Your task to perform on an android device: open app "PUBG MOBILE" (install if not already installed) and go to login screen Image 0: 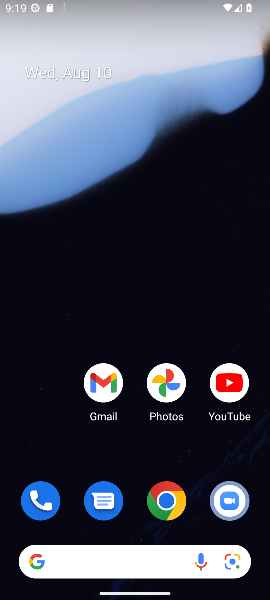
Step 0: drag from (136, 531) to (154, 90)
Your task to perform on an android device: open app "PUBG MOBILE" (install if not already installed) and go to login screen Image 1: 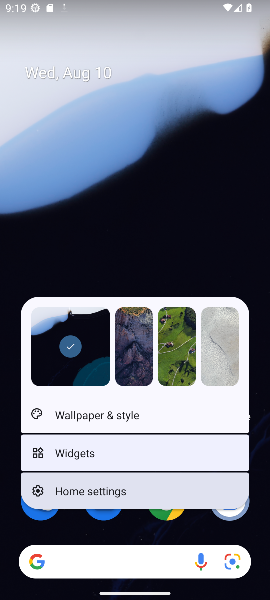
Step 1: click (154, 90)
Your task to perform on an android device: open app "PUBG MOBILE" (install if not already installed) and go to login screen Image 2: 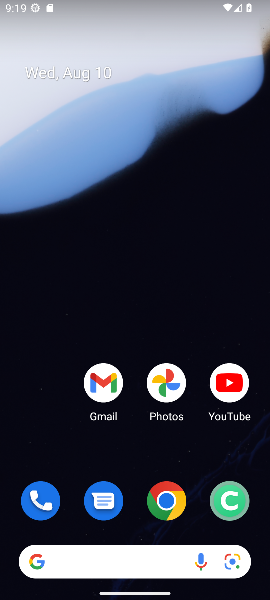
Step 2: drag from (141, 517) to (184, 186)
Your task to perform on an android device: open app "PUBG MOBILE" (install if not already installed) and go to login screen Image 3: 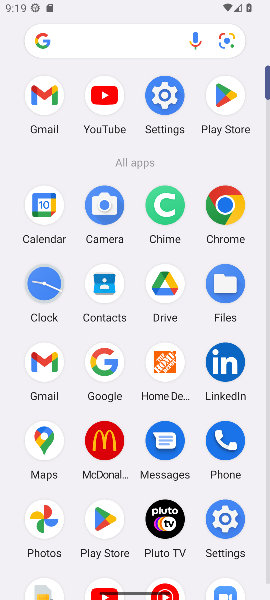
Step 3: click (228, 114)
Your task to perform on an android device: open app "PUBG MOBILE" (install if not already installed) and go to login screen Image 4: 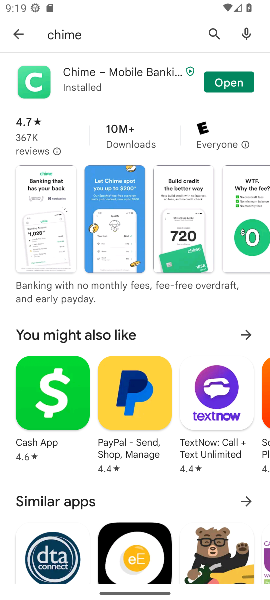
Step 4: click (220, 41)
Your task to perform on an android device: open app "PUBG MOBILE" (install if not already installed) and go to login screen Image 5: 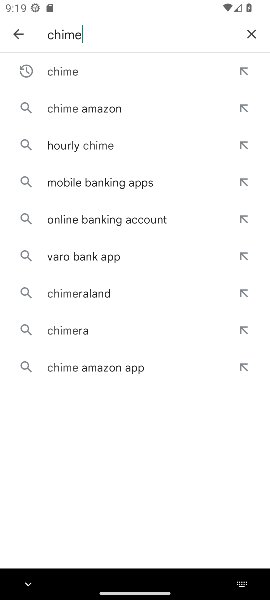
Step 5: click (243, 41)
Your task to perform on an android device: open app "PUBG MOBILE" (install if not already installed) and go to login screen Image 6: 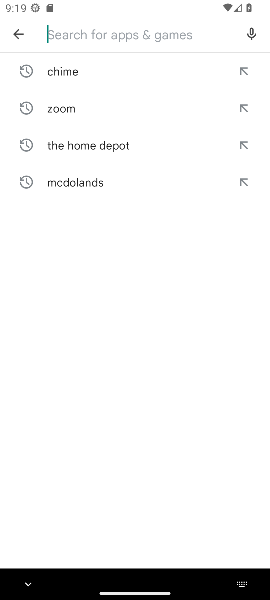
Step 6: type ""
Your task to perform on an android device: open app "PUBG MOBILE" (install if not already installed) and go to login screen Image 7: 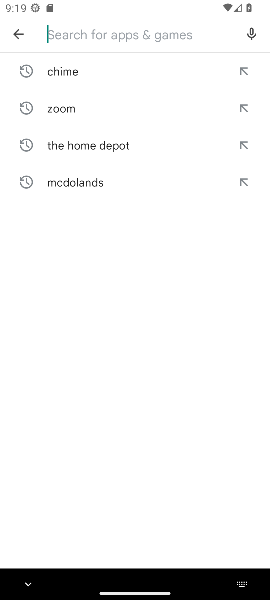
Step 7: type "pubg"
Your task to perform on an android device: open app "PUBG MOBILE" (install if not already installed) and go to login screen Image 8: 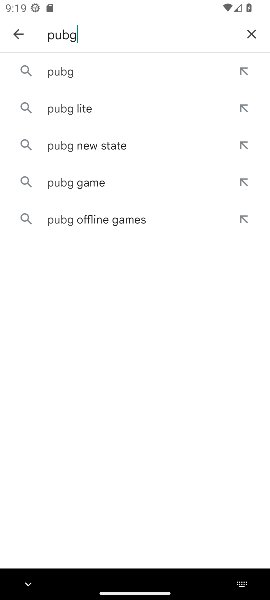
Step 8: click (71, 83)
Your task to perform on an android device: open app "PUBG MOBILE" (install if not already installed) and go to login screen Image 9: 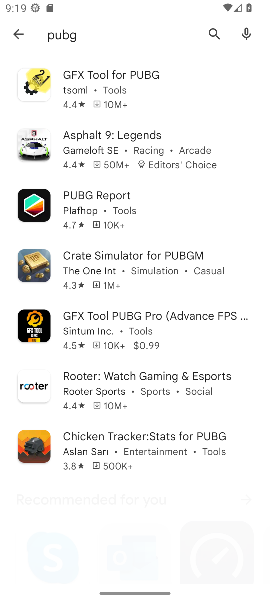
Step 9: click (71, 83)
Your task to perform on an android device: open app "PUBG MOBILE" (install if not already installed) and go to login screen Image 10: 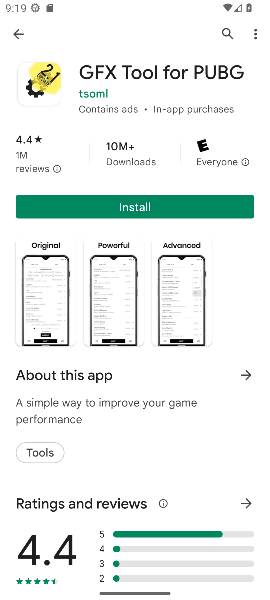
Step 10: click (71, 83)
Your task to perform on an android device: open app "PUBG MOBILE" (install if not already installed) and go to login screen Image 11: 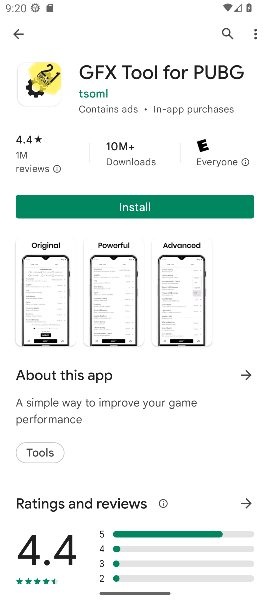
Step 11: click (71, 83)
Your task to perform on an android device: open app "PUBG MOBILE" (install if not already installed) and go to login screen Image 12: 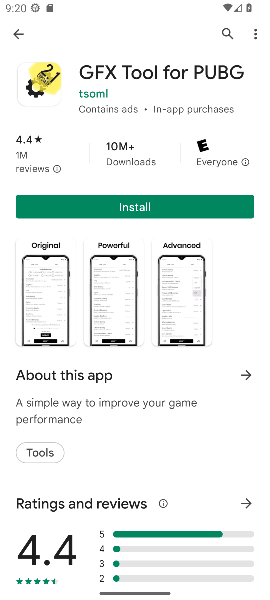
Step 12: click (71, 83)
Your task to perform on an android device: open app "PUBG MOBILE" (install if not already installed) and go to login screen Image 13: 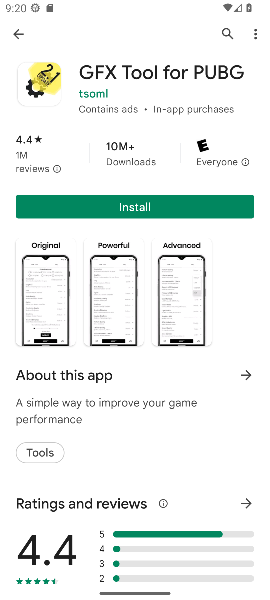
Step 13: click (71, 83)
Your task to perform on an android device: open app "PUBG MOBILE" (install if not already installed) and go to login screen Image 14: 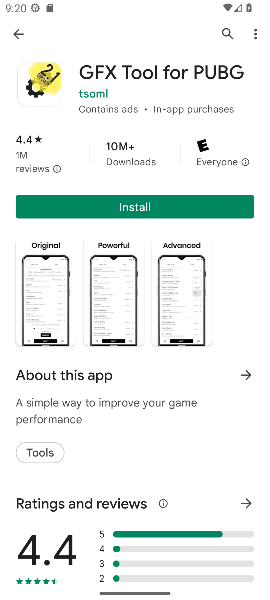
Step 14: click (71, 83)
Your task to perform on an android device: open app "PUBG MOBILE" (install if not already installed) and go to login screen Image 15: 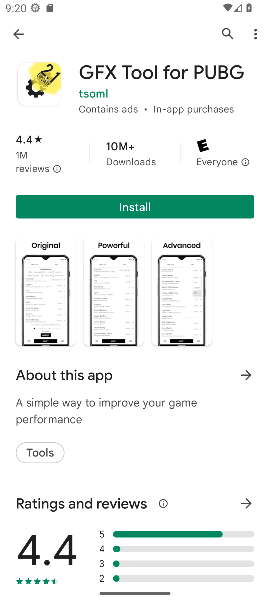
Step 15: task complete